Your task to perform on an android device: read, delete, or share a saved page in the chrome app Image 0: 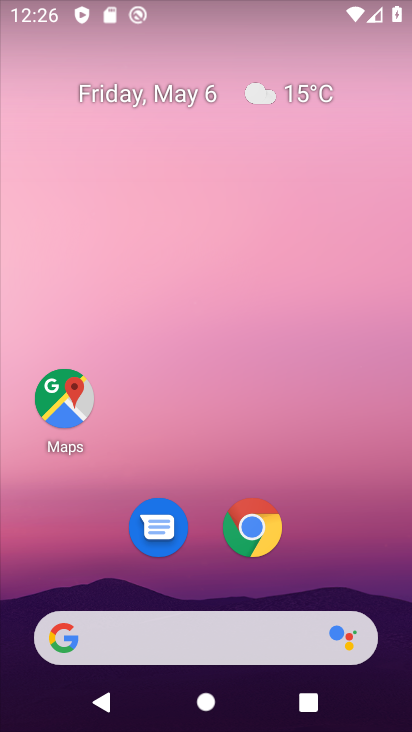
Step 0: click (250, 521)
Your task to perform on an android device: read, delete, or share a saved page in the chrome app Image 1: 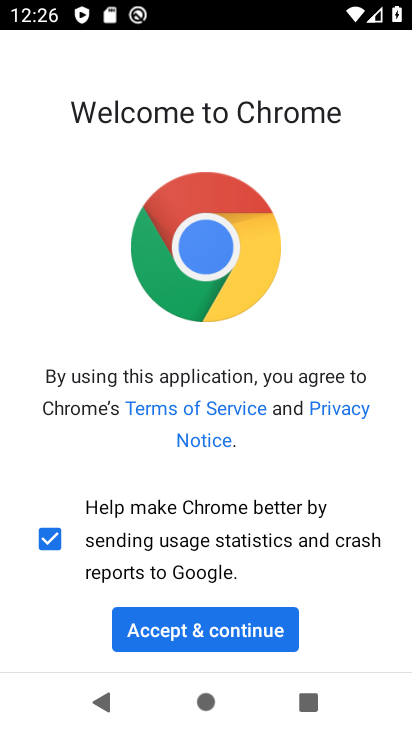
Step 1: click (207, 629)
Your task to perform on an android device: read, delete, or share a saved page in the chrome app Image 2: 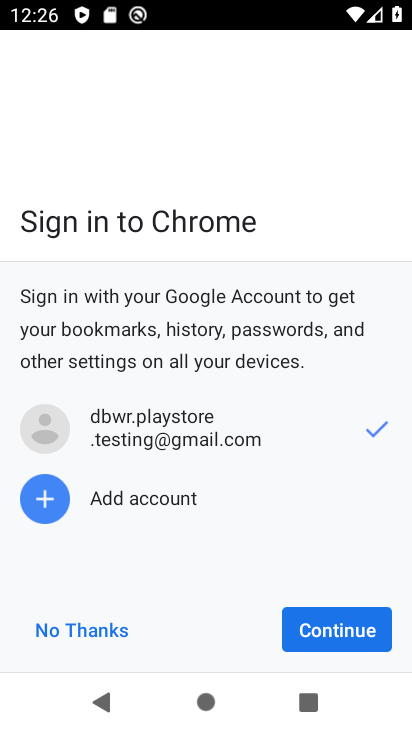
Step 2: click (325, 629)
Your task to perform on an android device: read, delete, or share a saved page in the chrome app Image 3: 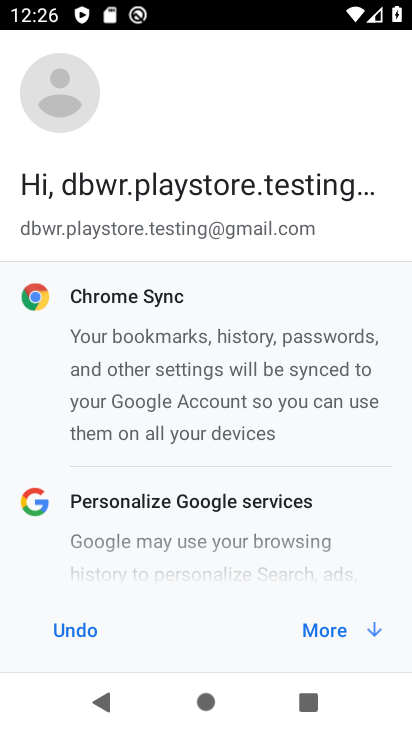
Step 3: click (325, 629)
Your task to perform on an android device: read, delete, or share a saved page in the chrome app Image 4: 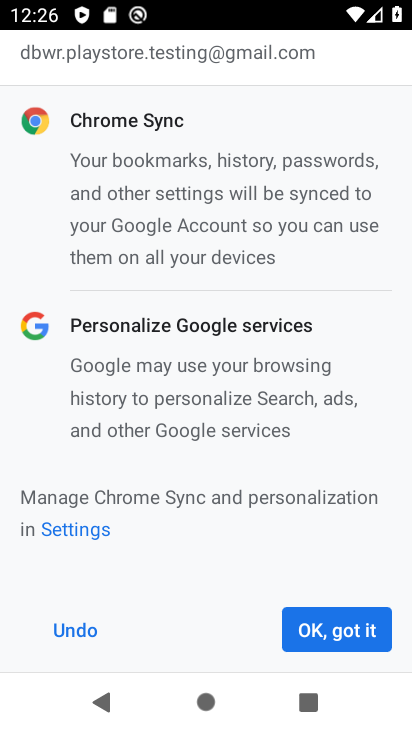
Step 4: click (325, 629)
Your task to perform on an android device: read, delete, or share a saved page in the chrome app Image 5: 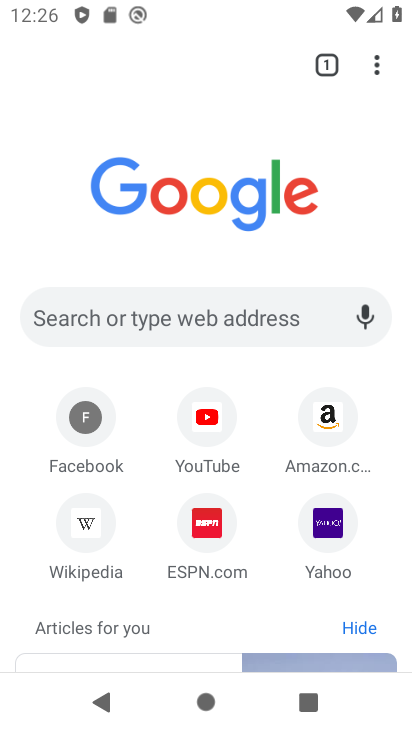
Step 5: click (378, 65)
Your task to perform on an android device: read, delete, or share a saved page in the chrome app Image 6: 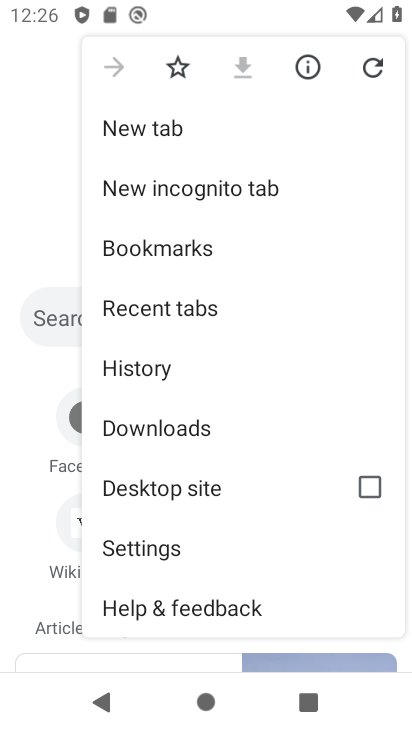
Step 6: click (174, 436)
Your task to perform on an android device: read, delete, or share a saved page in the chrome app Image 7: 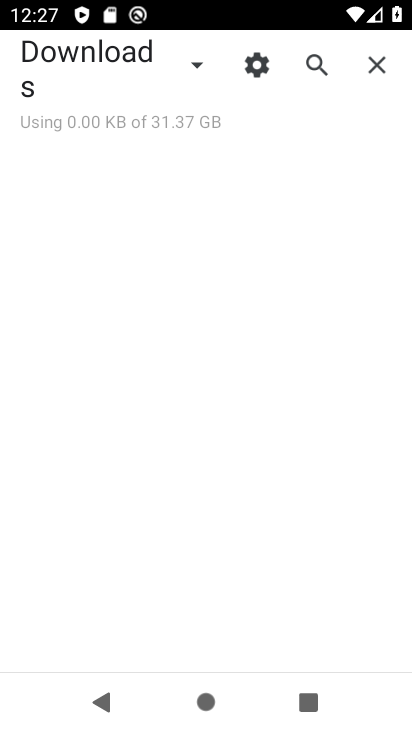
Step 7: task complete